Your task to perform on an android device: check android version Image 0: 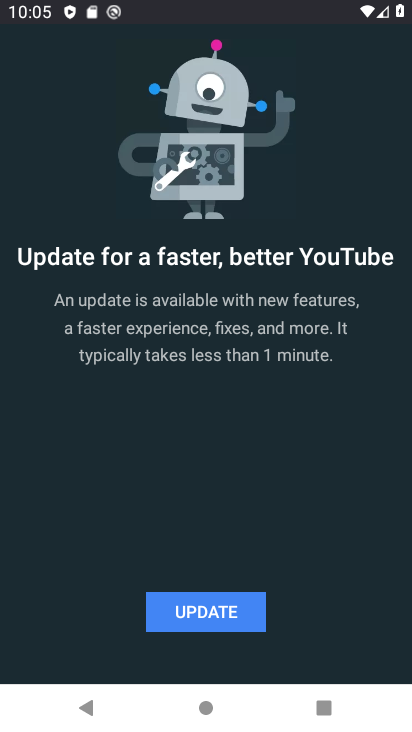
Step 0: press back button
Your task to perform on an android device: check android version Image 1: 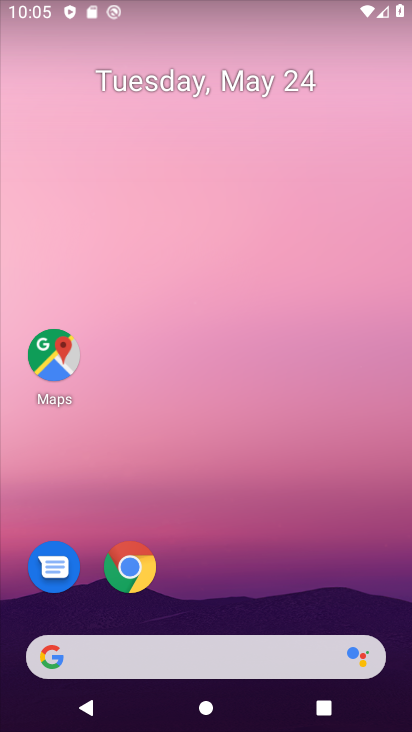
Step 1: drag from (394, 681) to (356, 346)
Your task to perform on an android device: check android version Image 2: 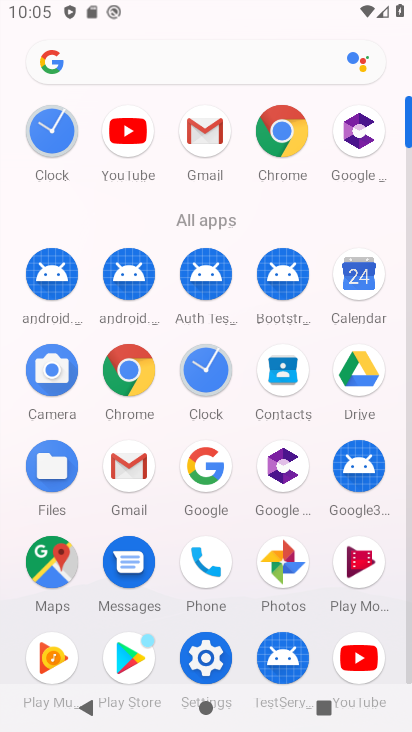
Step 2: click (198, 648)
Your task to perform on an android device: check android version Image 3: 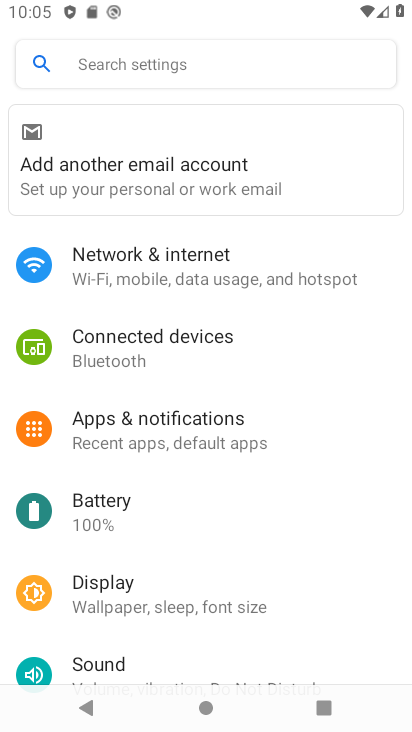
Step 3: drag from (346, 659) to (316, 273)
Your task to perform on an android device: check android version Image 4: 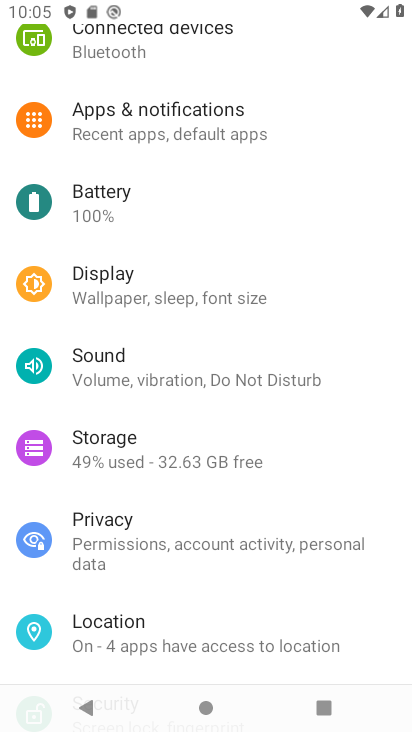
Step 4: drag from (364, 653) to (339, 277)
Your task to perform on an android device: check android version Image 5: 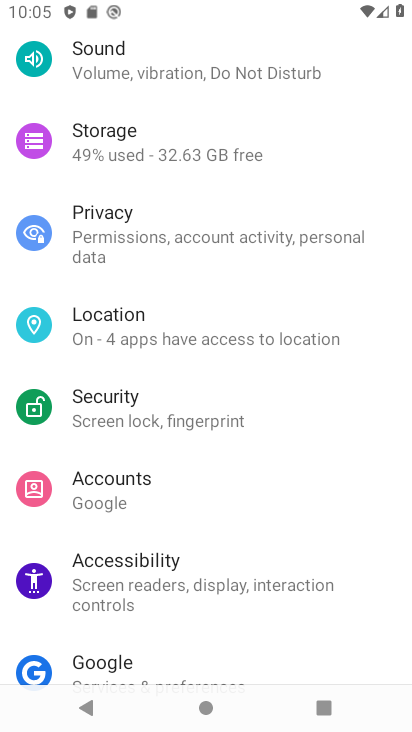
Step 5: drag from (325, 550) to (327, 318)
Your task to perform on an android device: check android version Image 6: 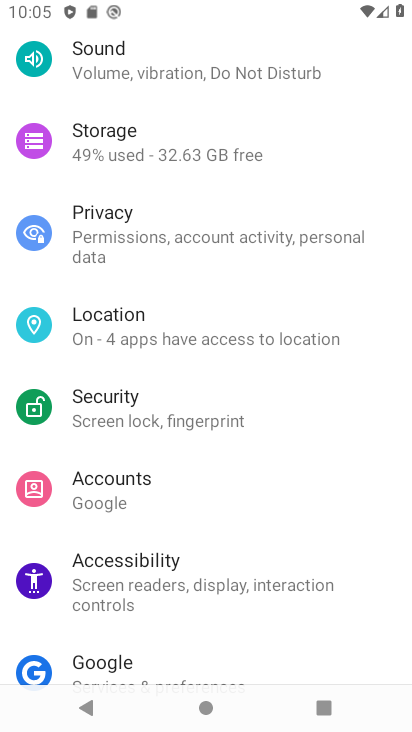
Step 6: drag from (331, 645) to (309, 325)
Your task to perform on an android device: check android version Image 7: 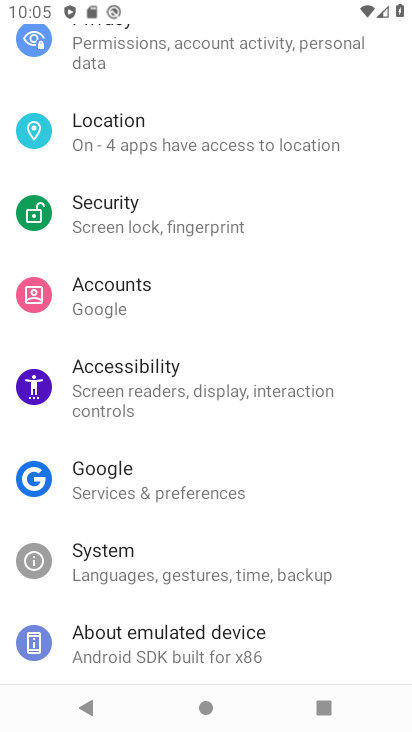
Step 7: click (139, 636)
Your task to perform on an android device: check android version Image 8: 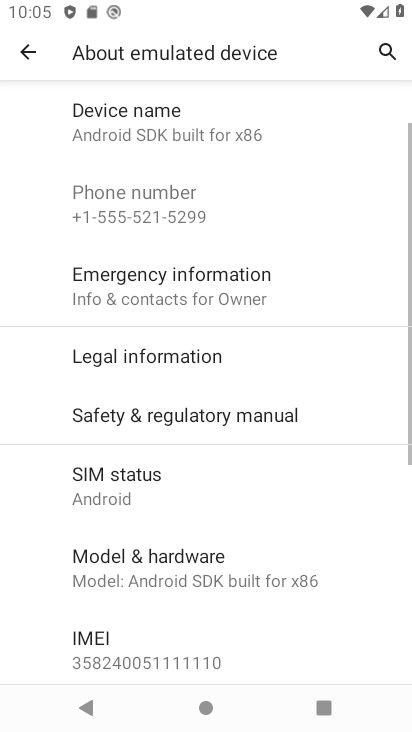
Step 8: drag from (344, 559) to (339, 368)
Your task to perform on an android device: check android version Image 9: 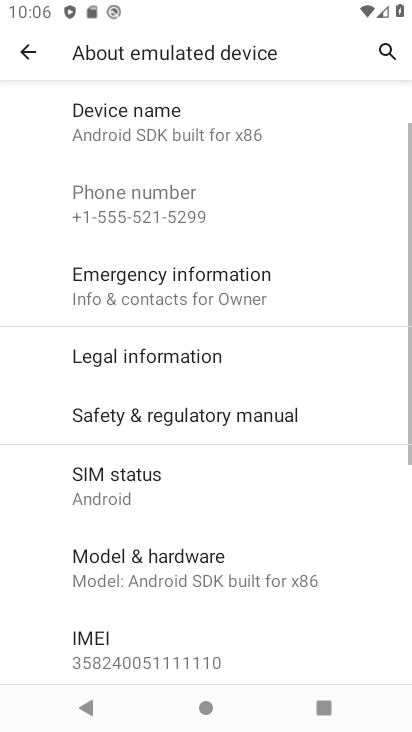
Step 9: drag from (350, 538) to (344, 328)
Your task to perform on an android device: check android version Image 10: 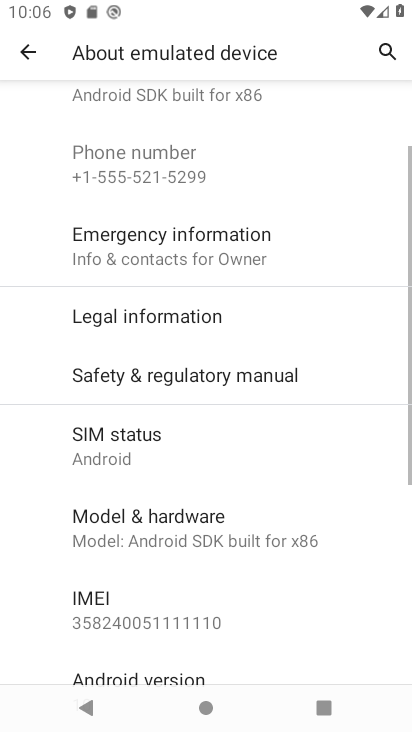
Step 10: drag from (324, 636) to (322, 392)
Your task to perform on an android device: check android version Image 11: 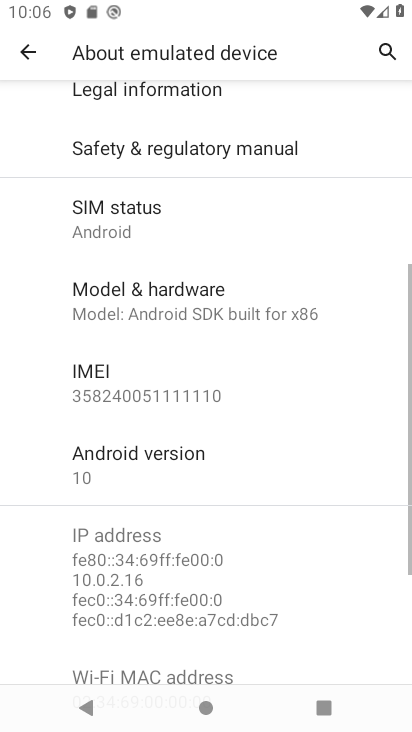
Step 11: click (160, 456)
Your task to perform on an android device: check android version Image 12: 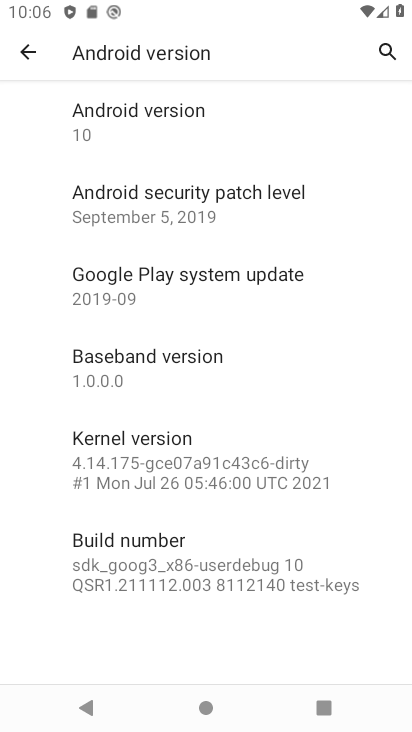
Step 12: click (153, 117)
Your task to perform on an android device: check android version Image 13: 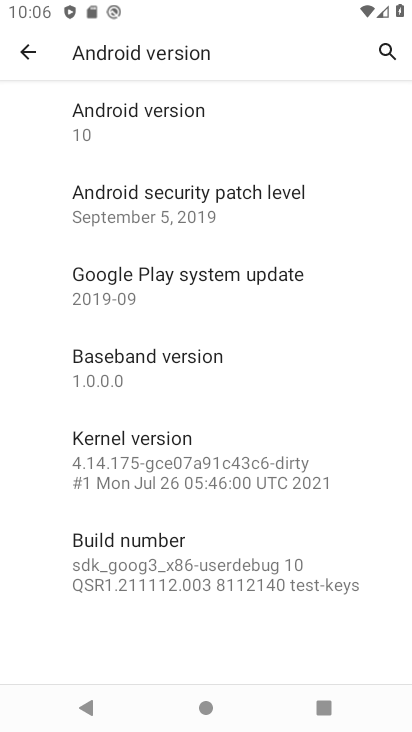
Step 13: task complete